Your task to perform on an android device: Go to Maps Image 0: 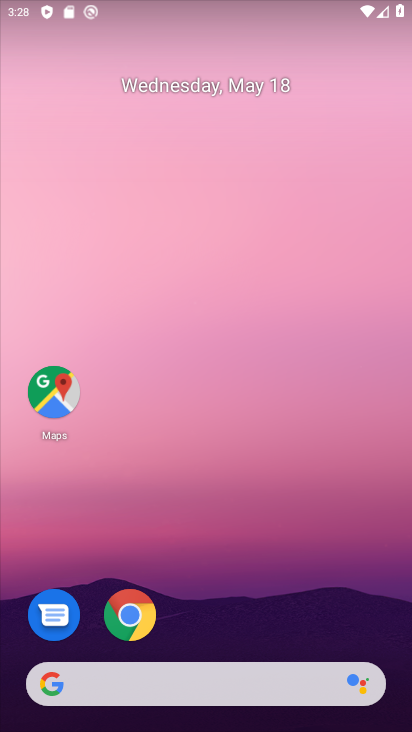
Step 0: click (278, 160)
Your task to perform on an android device: Go to Maps Image 1: 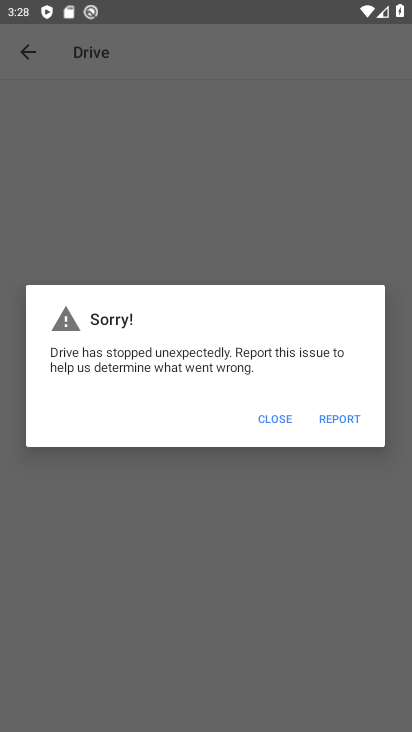
Step 1: press home button
Your task to perform on an android device: Go to Maps Image 2: 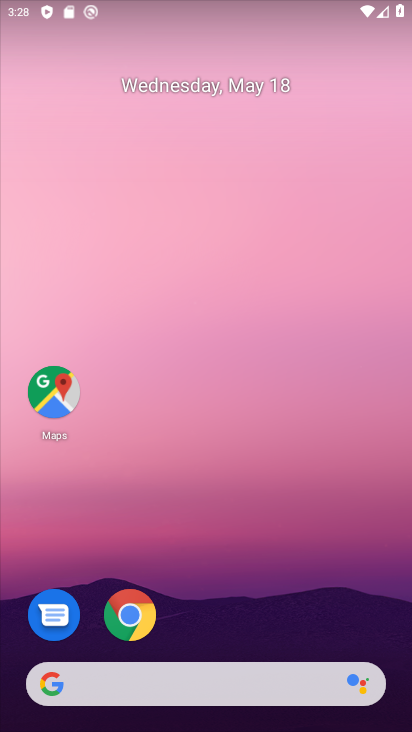
Step 2: click (35, 380)
Your task to perform on an android device: Go to Maps Image 3: 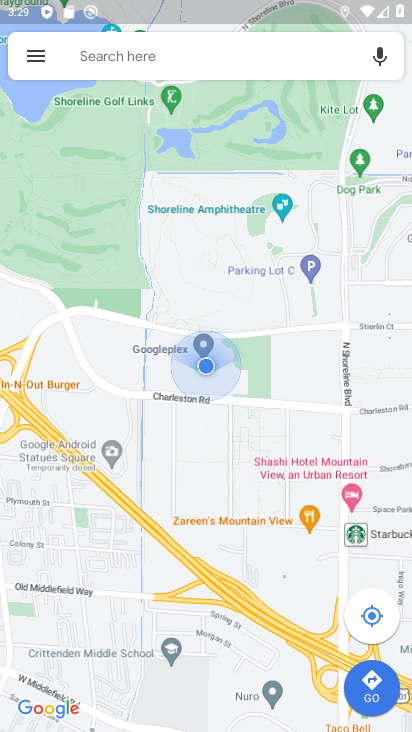
Step 3: task complete